Your task to perform on an android device: make emails show in primary in the gmail app Image 0: 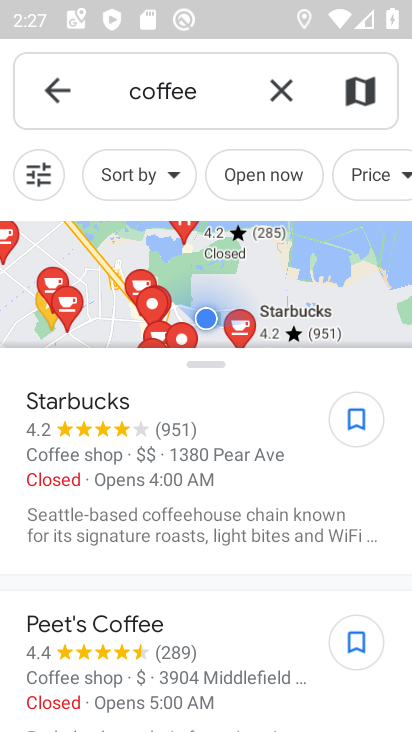
Step 0: press home button
Your task to perform on an android device: make emails show in primary in the gmail app Image 1: 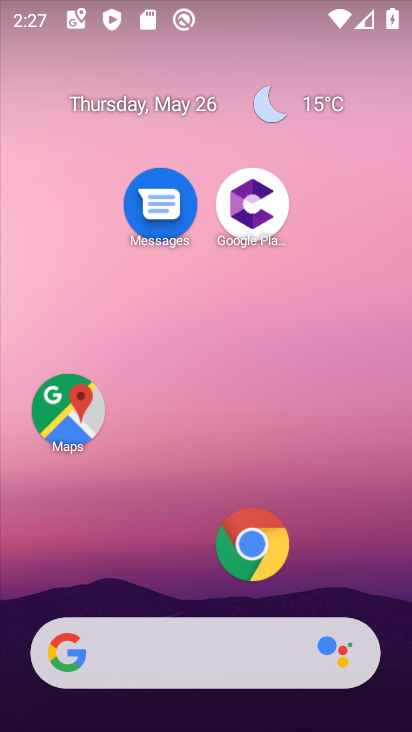
Step 1: drag from (167, 568) to (257, 0)
Your task to perform on an android device: make emails show in primary in the gmail app Image 2: 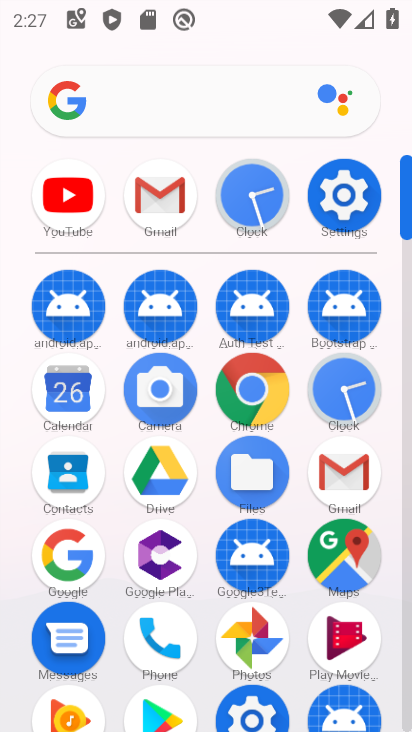
Step 2: click (172, 179)
Your task to perform on an android device: make emails show in primary in the gmail app Image 3: 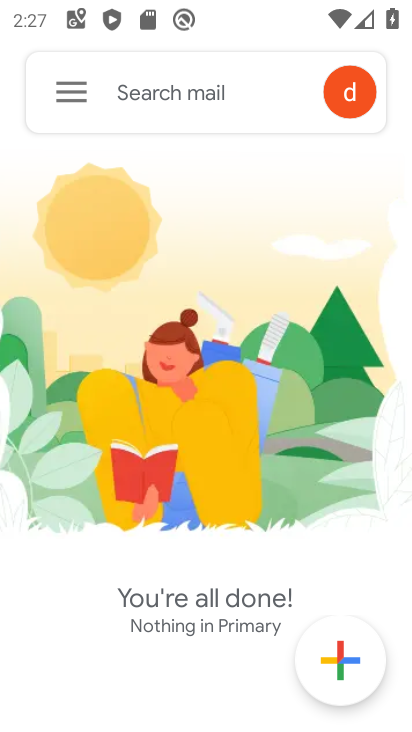
Step 3: click (69, 86)
Your task to perform on an android device: make emails show in primary in the gmail app Image 4: 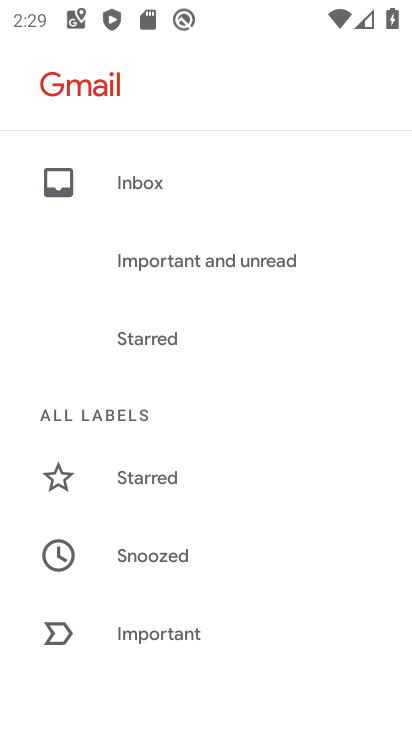
Step 4: task complete